Your task to perform on an android device: Go to wifi settings Image 0: 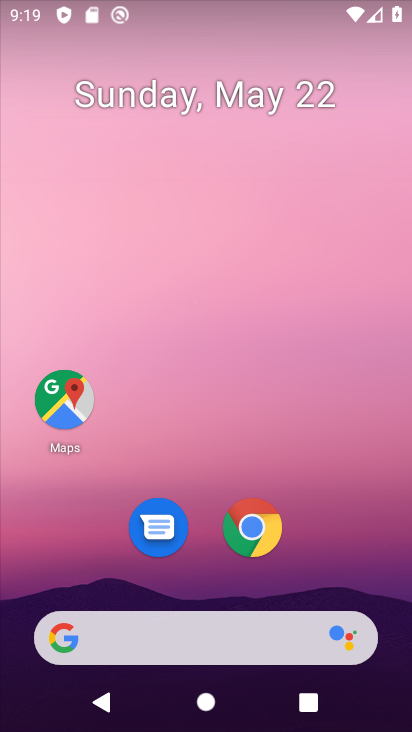
Step 0: drag from (287, 490) to (389, 578)
Your task to perform on an android device: Go to wifi settings Image 1: 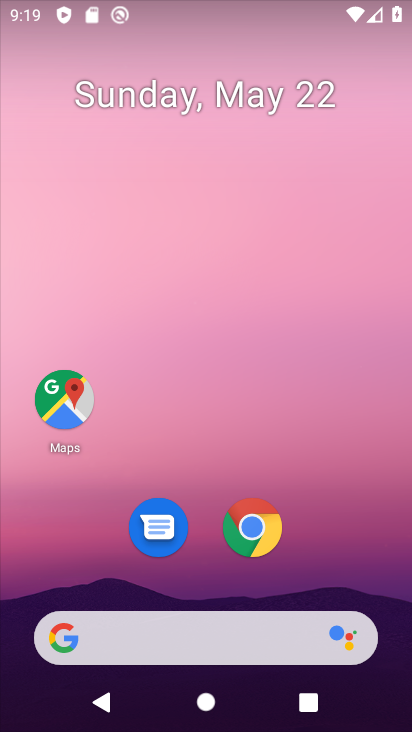
Step 1: drag from (195, 580) to (219, 88)
Your task to perform on an android device: Go to wifi settings Image 2: 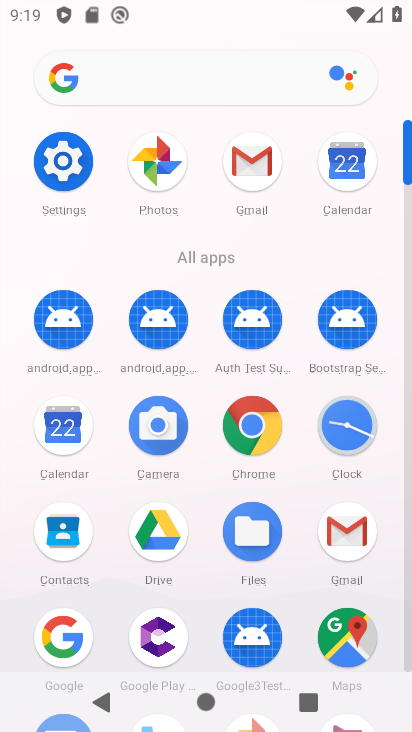
Step 2: click (80, 165)
Your task to perform on an android device: Go to wifi settings Image 3: 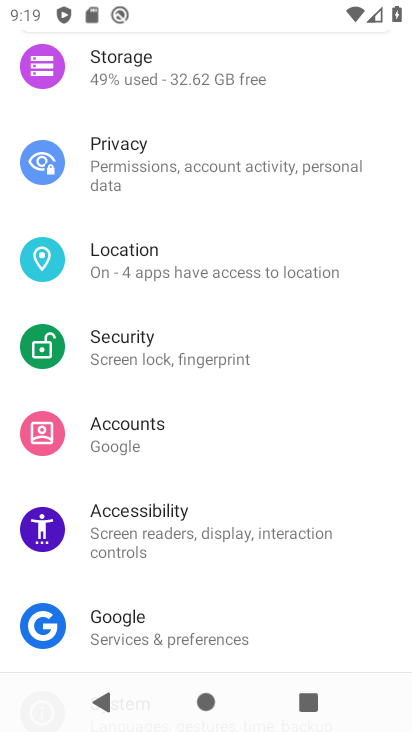
Step 3: drag from (166, 254) to (166, 561)
Your task to perform on an android device: Go to wifi settings Image 4: 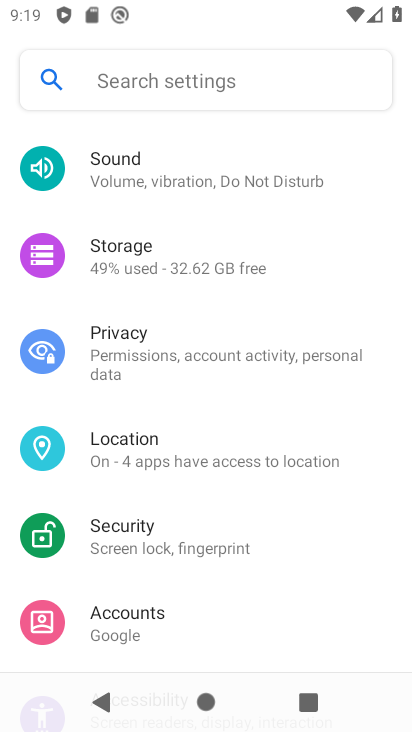
Step 4: drag from (200, 203) to (218, 559)
Your task to perform on an android device: Go to wifi settings Image 5: 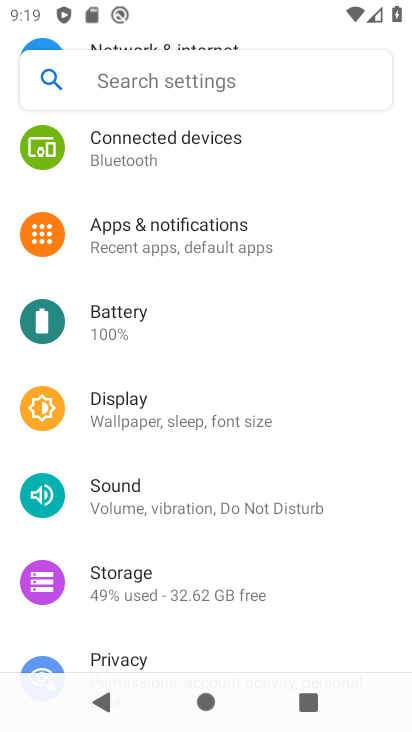
Step 5: drag from (230, 133) to (232, 599)
Your task to perform on an android device: Go to wifi settings Image 6: 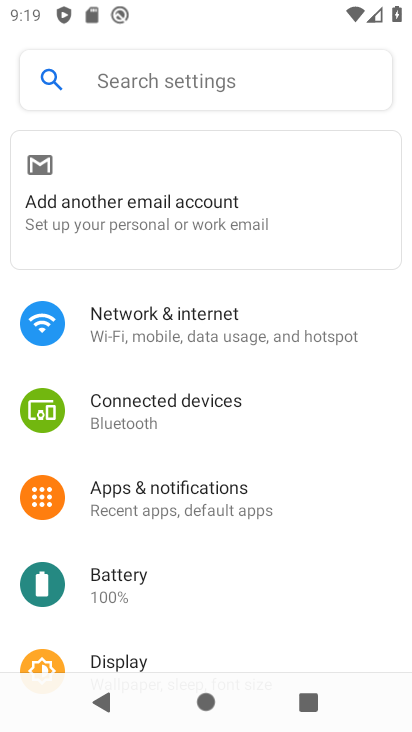
Step 6: click (193, 322)
Your task to perform on an android device: Go to wifi settings Image 7: 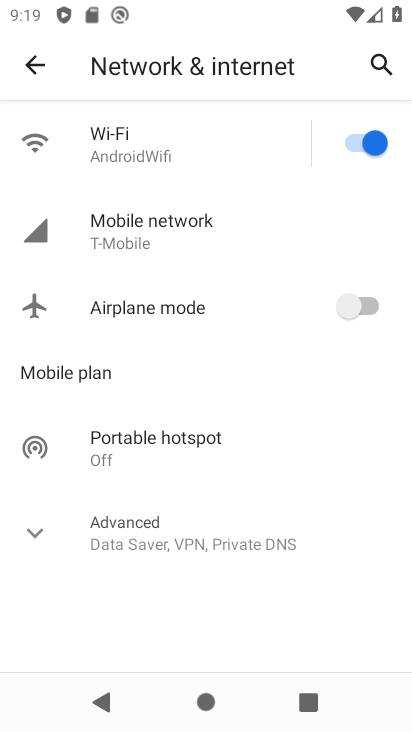
Step 7: task complete